Your task to perform on an android device: Open the Play Movies app and select the watchlist tab. Image 0: 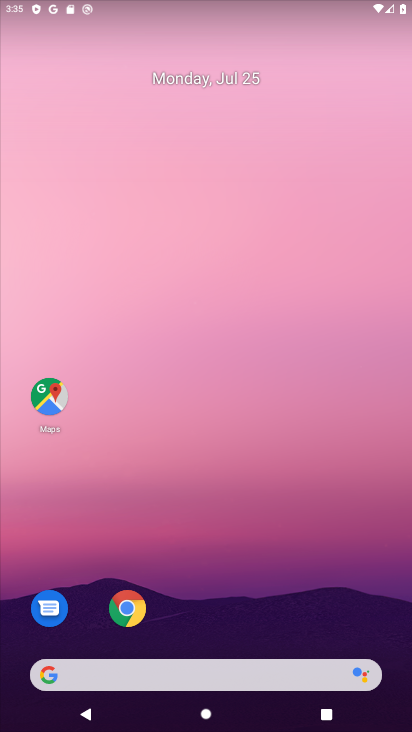
Step 0: press home button
Your task to perform on an android device: Open the Play Movies app and select the watchlist tab. Image 1: 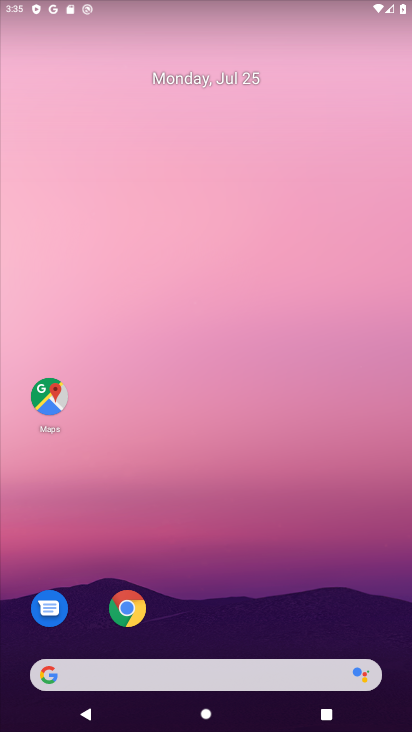
Step 1: drag from (218, 634) to (228, 33)
Your task to perform on an android device: Open the Play Movies app and select the watchlist tab. Image 2: 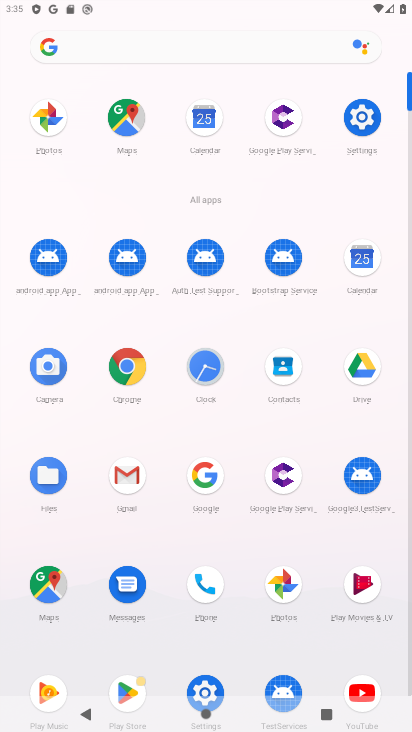
Step 2: click (358, 578)
Your task to perform on an android device: Open the Play Movies app and select the watchlist tab. Image 3: 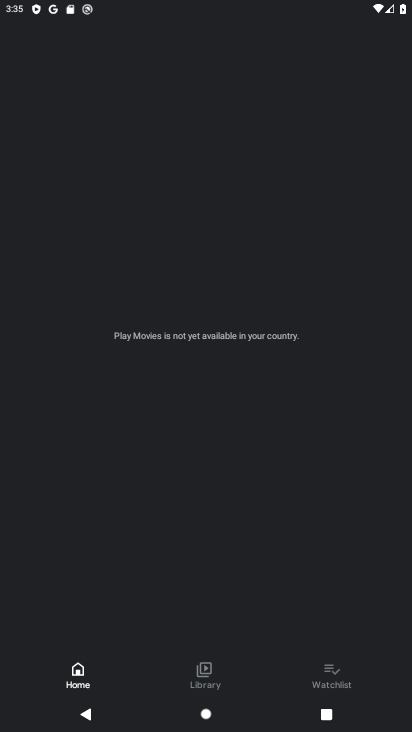
Step 3: click (331, 672)
Your task to perform on an android device: Open the Play Movies app and select the watchlist tab. Image 4: 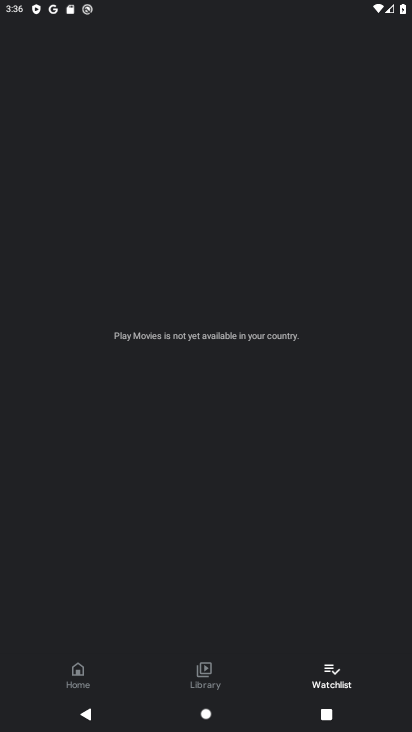
Step 4: task complete